Your task to perform on an android device: turn notification dots off Image 0: 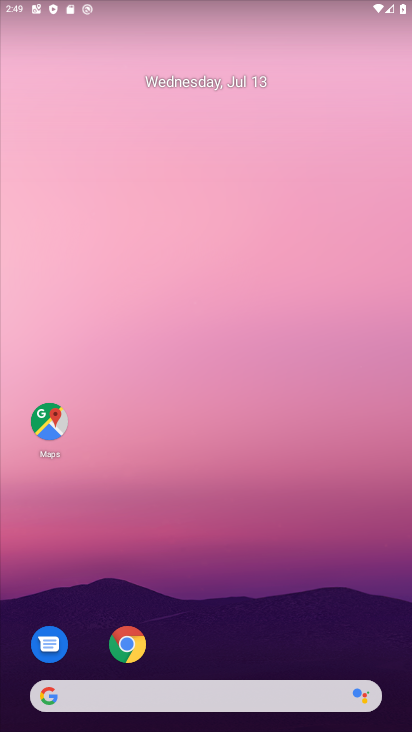
Step 0: drag from (320, 648) to (201, 2)
Your task to perform on an android device: turn notification dots off Image 1: 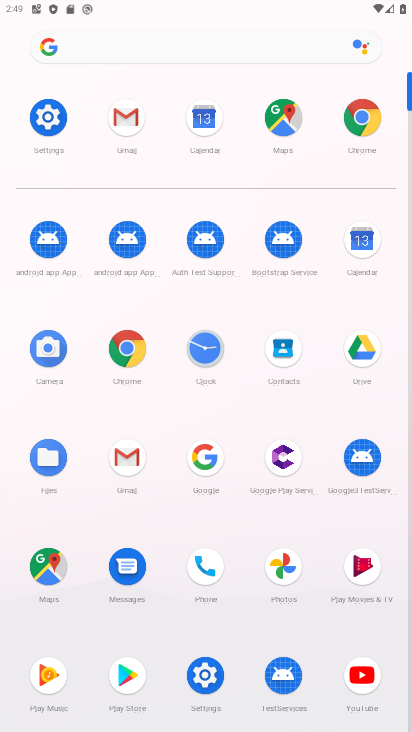
Step 1: drag from (273, 518) to (267, 56)
Your task to perform on an android device: turn notification dots off Image 2: 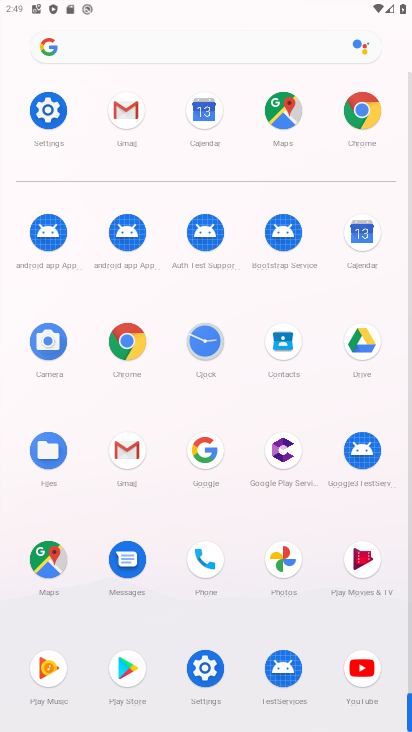
Step 2: click (49, 115)
Your task to perform on an android device: turn notification dots off Image 3: 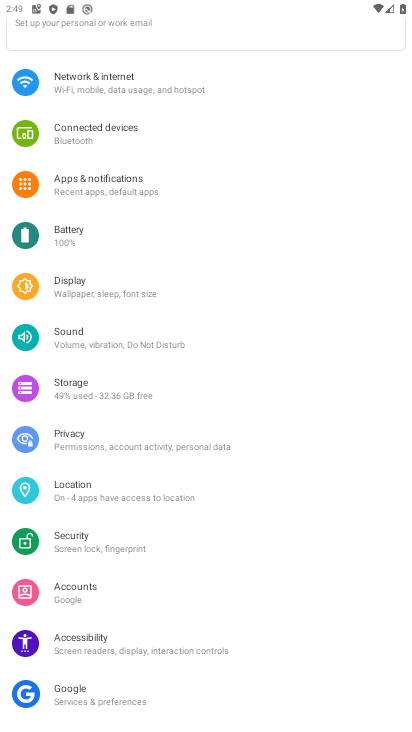
Step 3: click (114, 186)
Your task to perform on an android device: turn notification dots off Image 4: 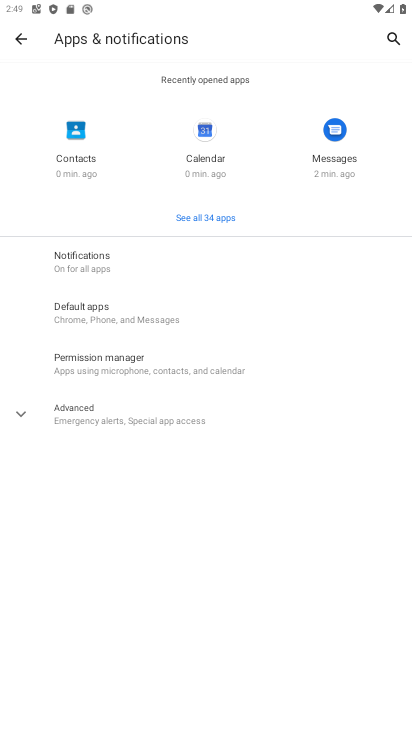
Step 4: click (111, 266)
Your task to perform on an android device: turn notification dots off Image 5: 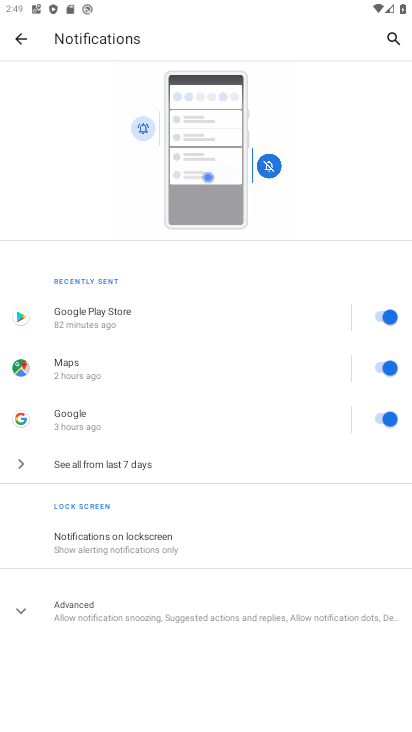
Step 5: click (160, 630)
Your task to perform on an android device: turn notification dots off Image 6: 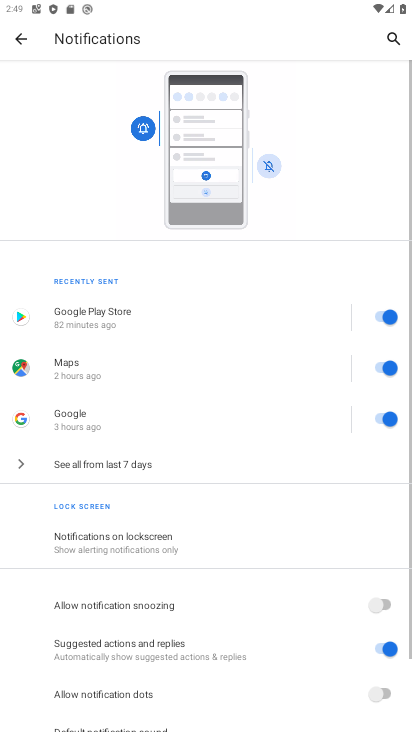
Step 6: task complete